Your task to perform on an android device: What's the weather today? Image 0: 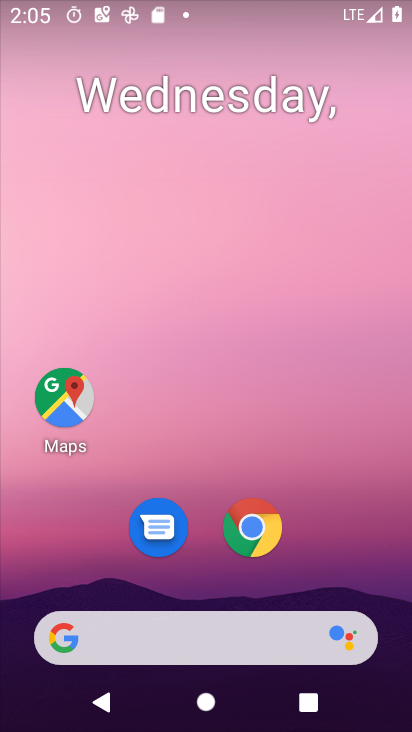
Step 0: drag from (337, 617) to (395, 23)
Your task to perform on an android device: What's the weather today? Image 1: 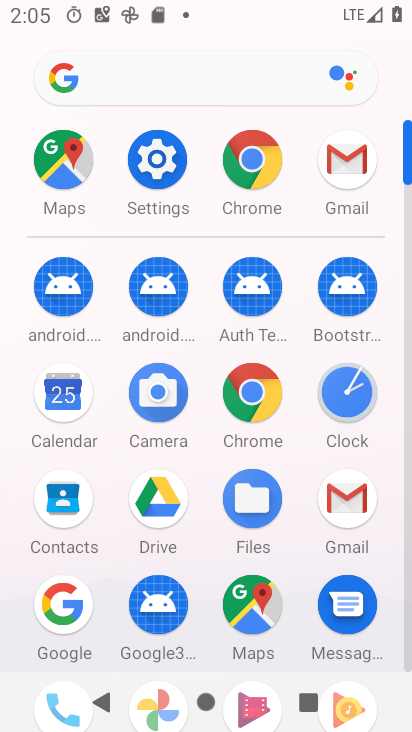
Step 1: press home button
Your task to perform on an android device: What's the weather today? Image 2: 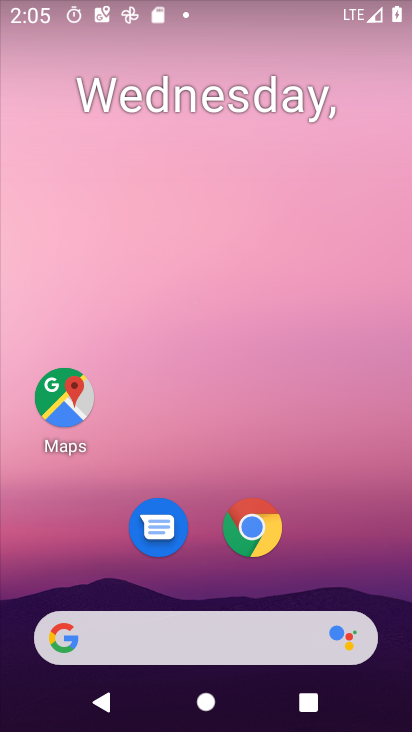
Step 2: drag from (32, 279) to (358, 238)
Your task to perform on an android device: What's the weather today? Image 3: 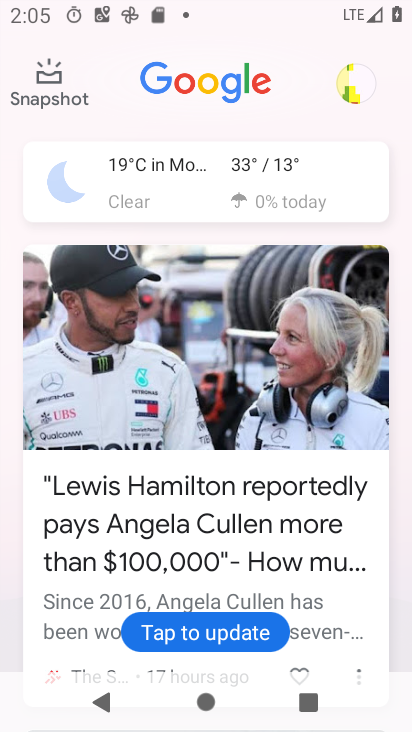
Step 3: click (262, 187)
Your task to perform on an android device: What's the weather today? Image 4: 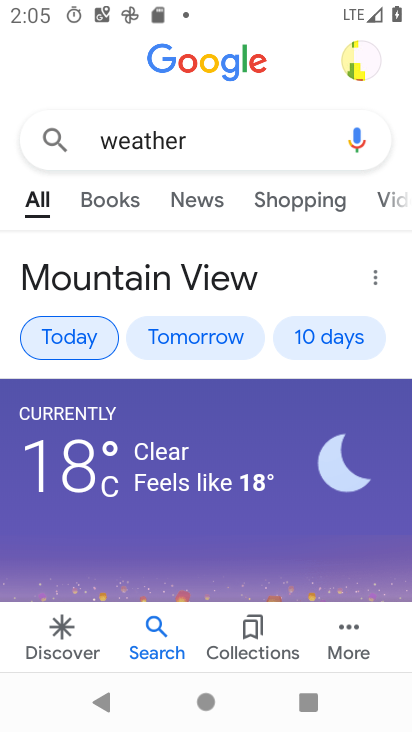
Step 4: task complete